Your task to perform on an android device: Open the calendar app, open the side menu, and click the "Day" option Image 0: 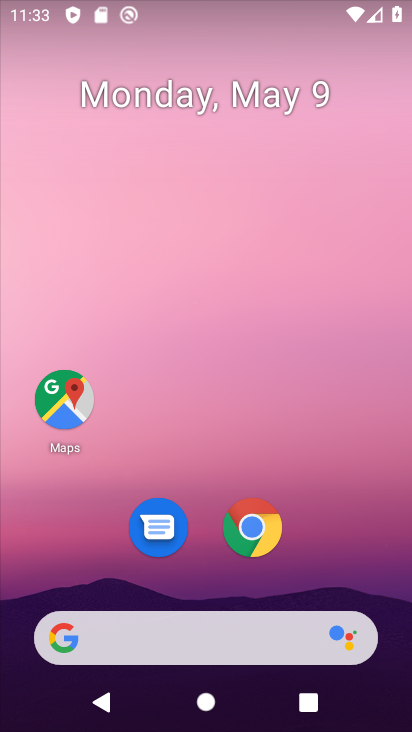
Step 0: drag from (213, 591) to (257, 27)
Your task to perform on an android device: Open the calendar app, open the side menu, and click the "Day" option Image 1: 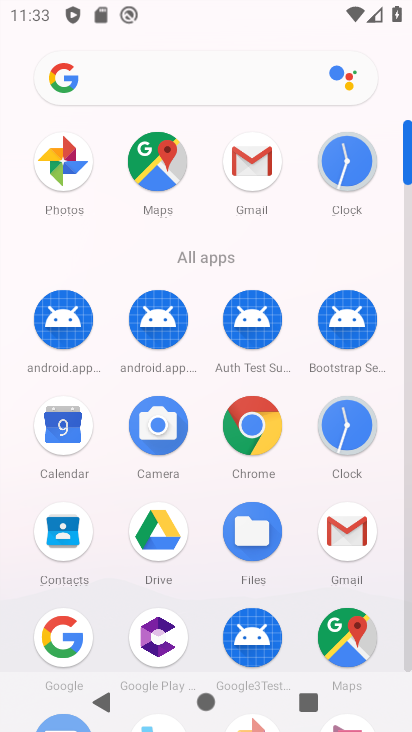
Step 1: click (67, 438)
Your task to perform on an android device: Open the calendar app, open the side menu, and click the "Day" option Image 2: 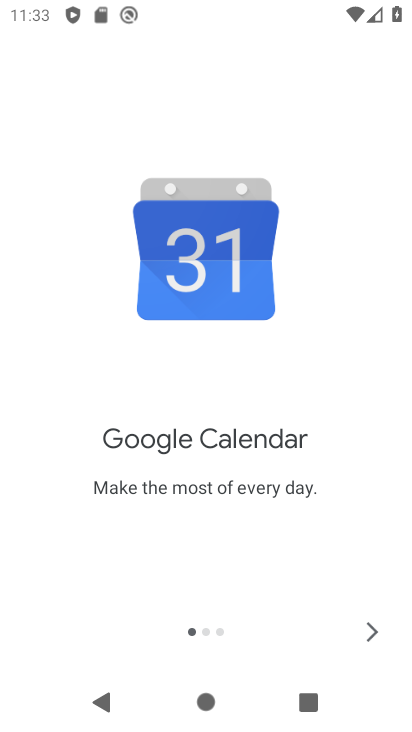
Step 2: click (368, 640)
Your task to perform on an android device: Open the calendar app, open the side menu, and click the "Day" option Image 3: 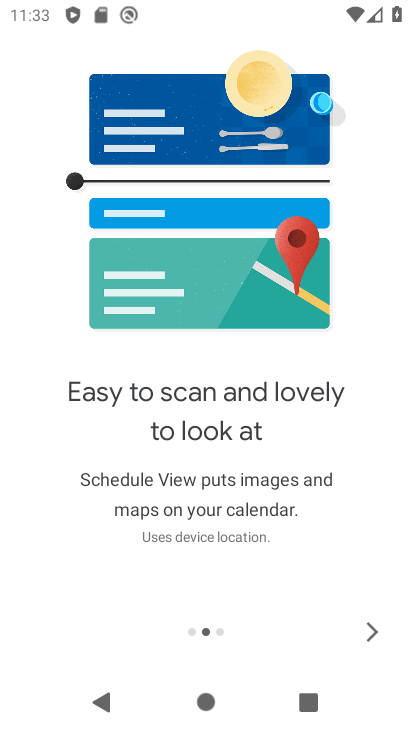
Step 3: click (365, 631)
Your task to perform on an android device: Open the calendar app, open the side menu, and click the "Day" option Image 4: 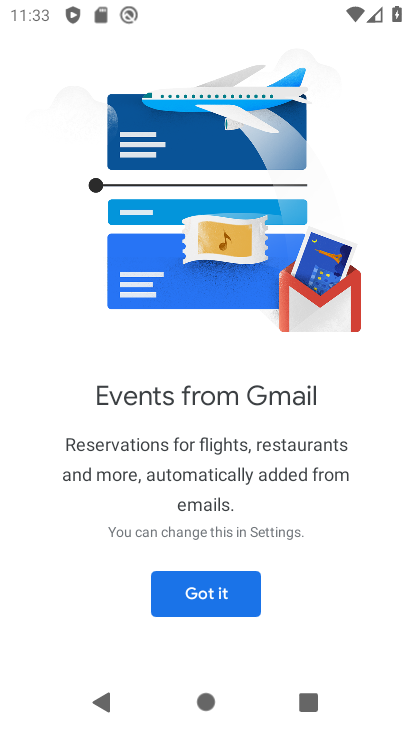
Step 4: click (230, 596)
Your task to perform on an android device: Open the calendar app, open the side menu, and click the "Day" option Image 5: 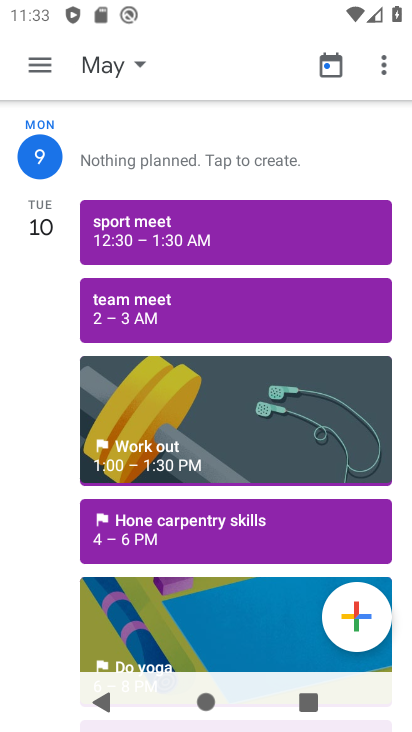
Step 5: click (47, 64)
Your task to perform on an android device: Open the calendar app, open the side menu, and click the "Day" option Image 6: 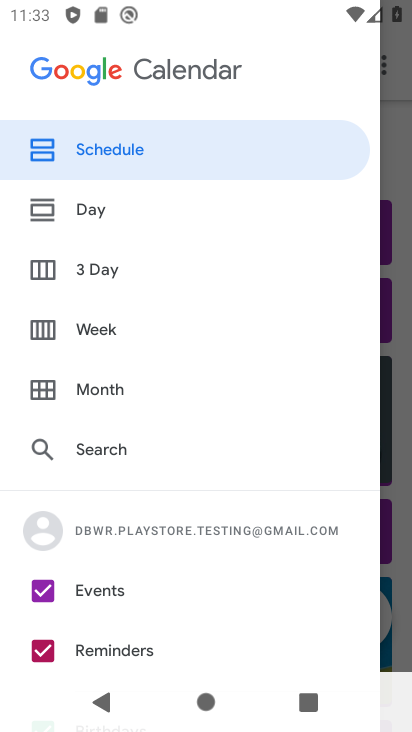
Step 6: click (72, 182)
Your task to perform on an android device: Open the calendar app, open the side menu, and click the "Day" option Image 7: 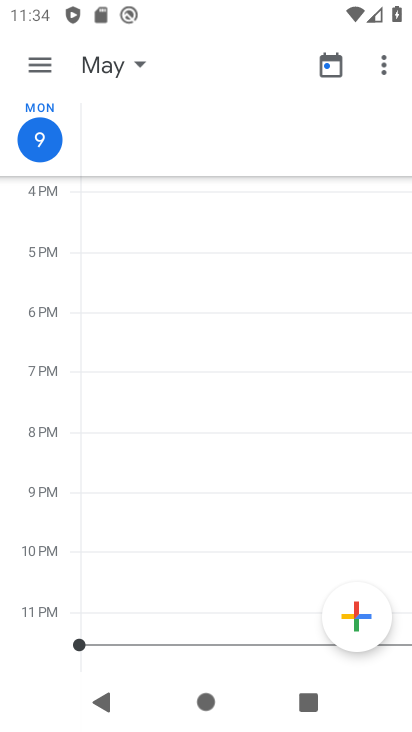
Step 7: task complete